Your task to perform on an android device: allow notifications from all sites in the chrome app Image 0: 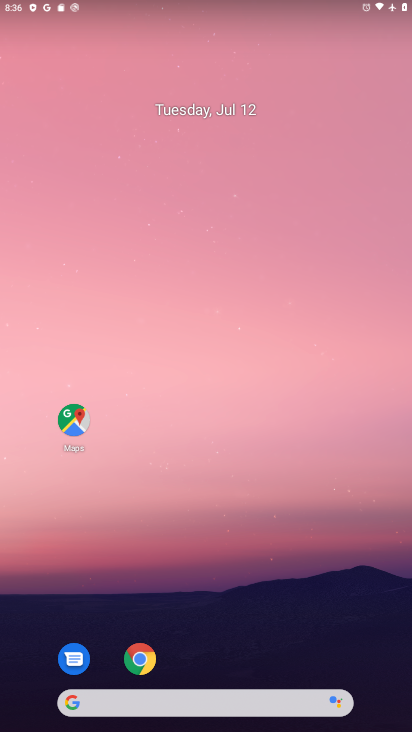
Step 0: drag from (268, 671) to (208, 240)
Your task to perform on an android device: allow notifications from all sites in the chrome app Image 1: 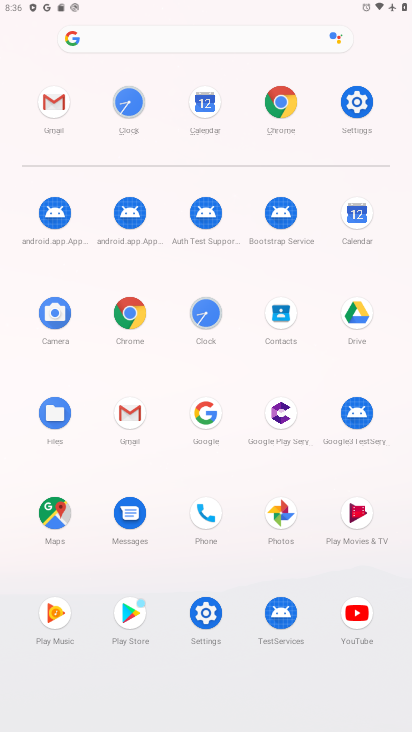
Step 1: click (270, 110)
Your task to perform on an android device: allow notifications from all sites in the chrome app Image 2: 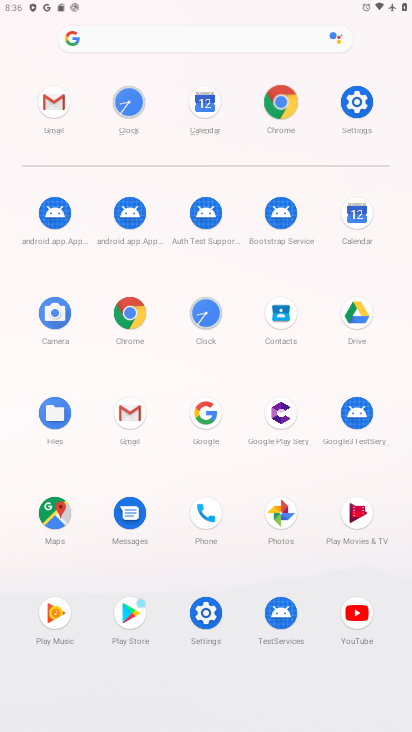
Step 2: click (271, 110)
Your task to perform on an android device: allow notifications from all sites in the chrome app Image 3: 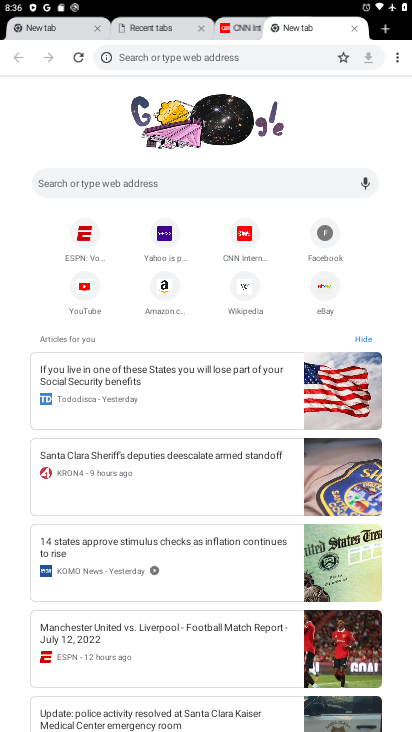
Step 3: click (399, 55)
Your task to perform on an android device: allow notifications from all sites in the chrome app Image 4: 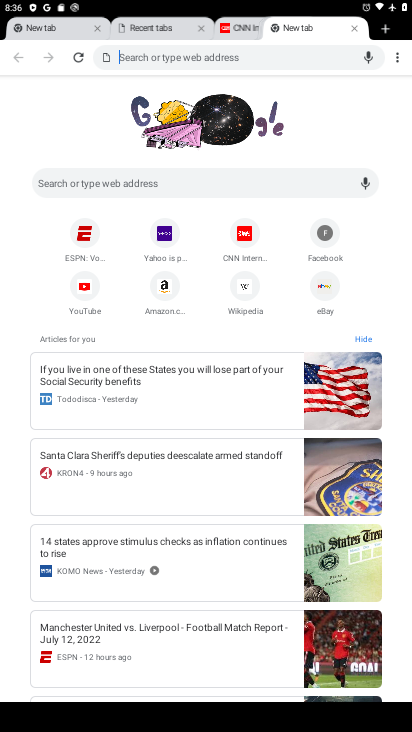
Step 4: drag from (394, 52) to (280, 257)
Your task to perform on an android device: allow notifications from all sites in the chrome app Image 5: 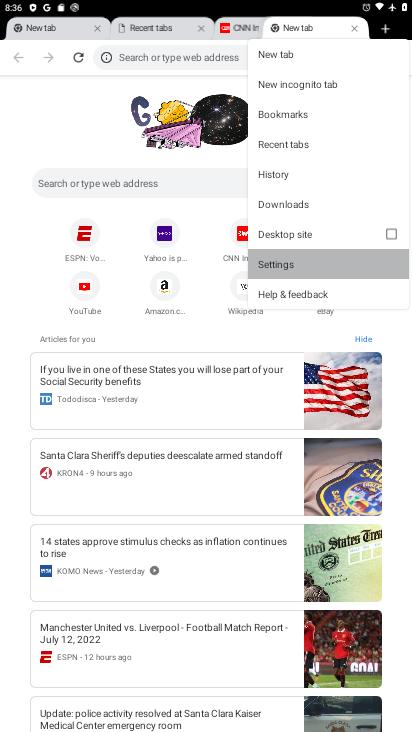
Step 5: click (282, 253)
Your task to perform on an android device: allow notifications from all sites in the chrome app Image 6: 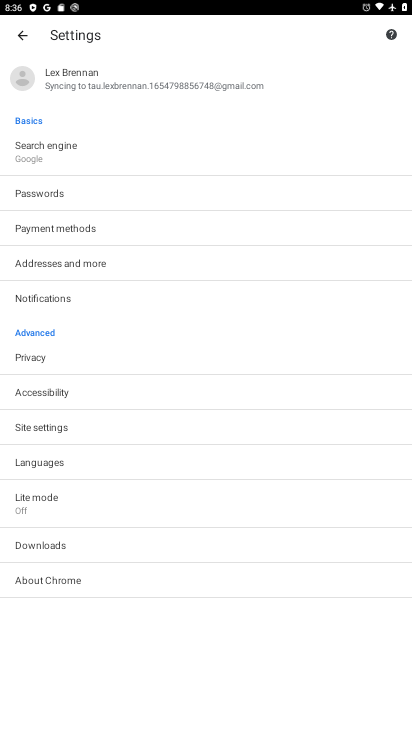
Step 6: click (29, 434)
Your task to perform on an android device: allow notifications from all sites in the chrome app Image 7: 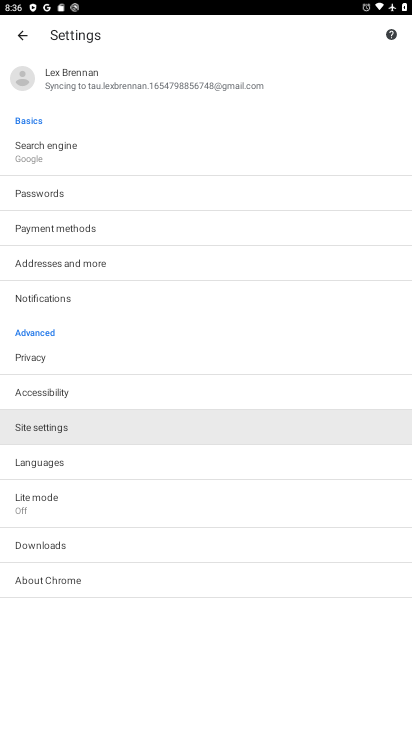
Step 7: click (42, 426)
Your task to perform on an android device: allow notifications from all sites in the chrome app Image 8: 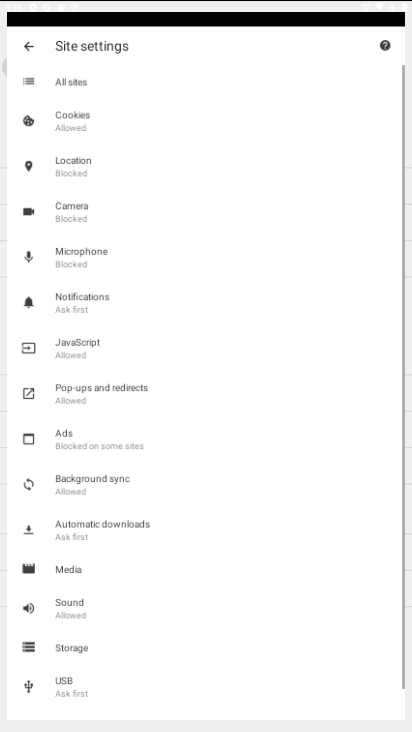
Step 8: click (46, 424)
Your task to perform on an android device: allow notifications from all sites in the chrome app Image 9: 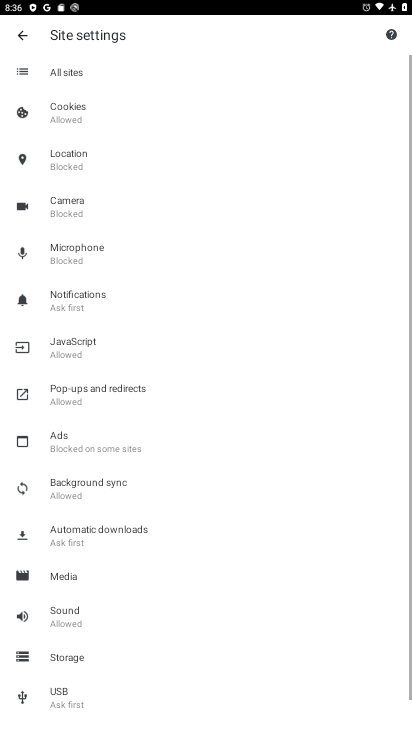
Step 9: click (45, 423)
Your task to perform on an android device: allow notifications from all sites in the chrome app Image 10: 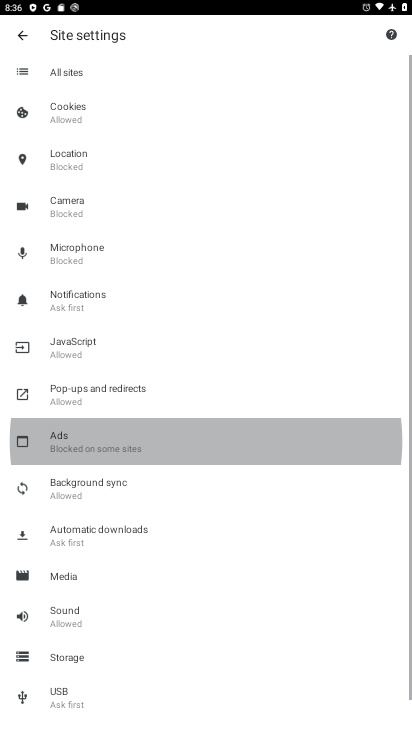
Step 10: click (46, 423)
Your task to perform on an android device: allow notifications from all sites in the chrome app Image 11: 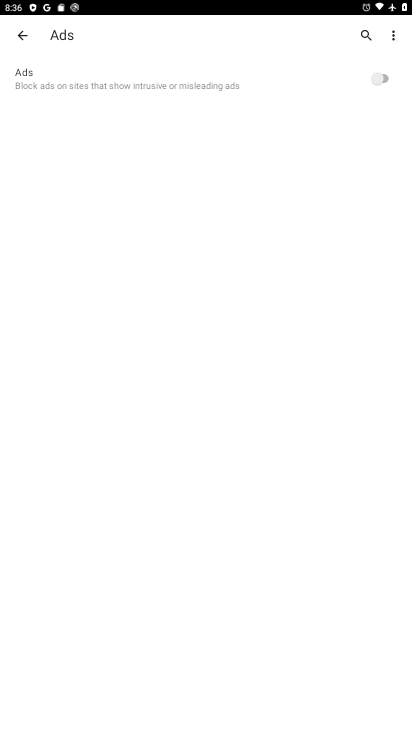
Step 11: click (25, 41)
Your task to perform on an android device: allow notifications from all sites in the chrome app Image 12: 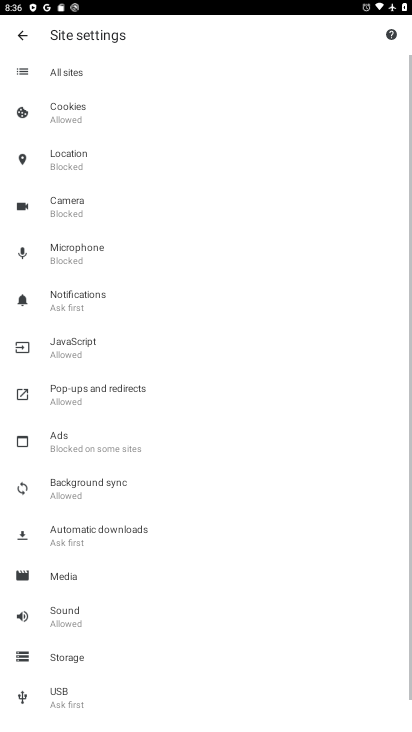
Step 12: click (69, 68)
Your task to perform on an android device: allow notifications from all sites in the chrome app Image 13: 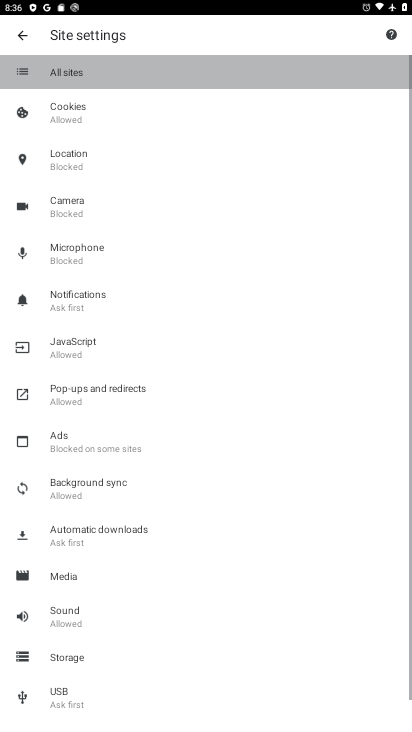
Step 13: click (70, 66)
Your task to perform on an android device: allow notifications from all sites in the chrome app Image 14: 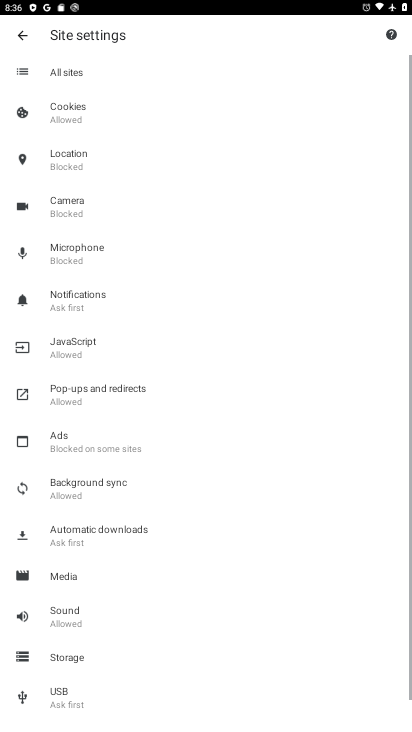
Step 14: click (71, 66)
Your task to perform on an android device: allow notifications from all sites in the chrome app Image 15: 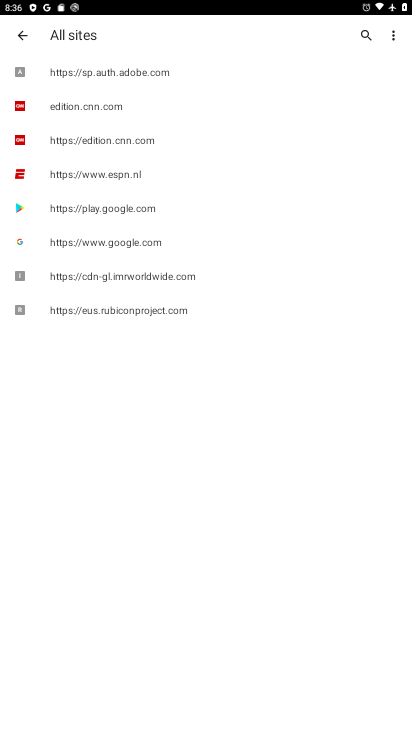
Step 15: task complete